Your task to perform on an android device: turn on data saver in the chrome app Image 0: 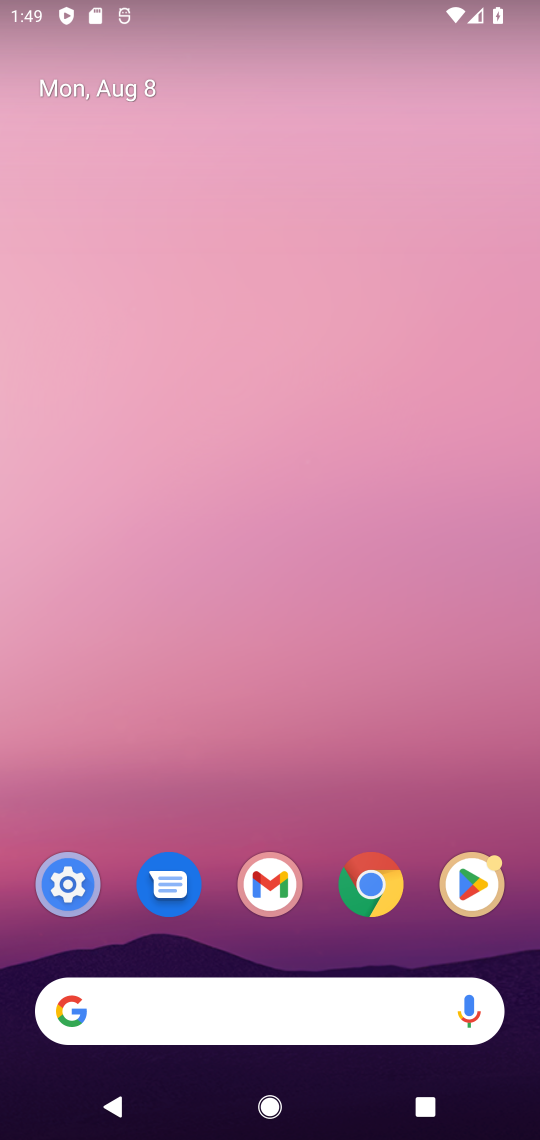
Step 0: click (372, 889)
Your task to perform on an android device: turn on data saver in the chrome app Image 1: 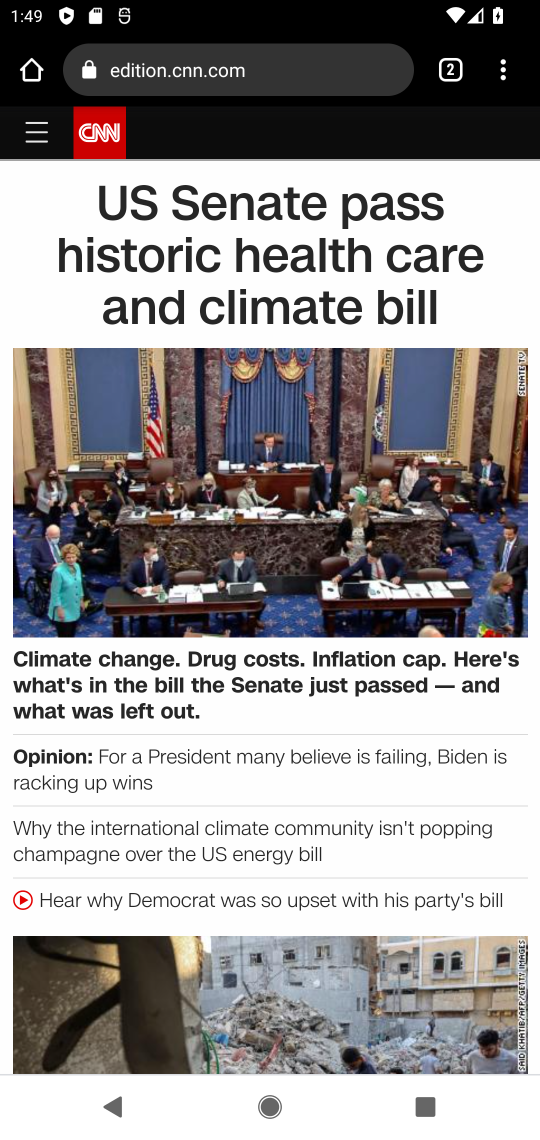
Step 1: click (504, 77)
Your task to perform on an android device: turn on data saver in the chrome app Image 2: 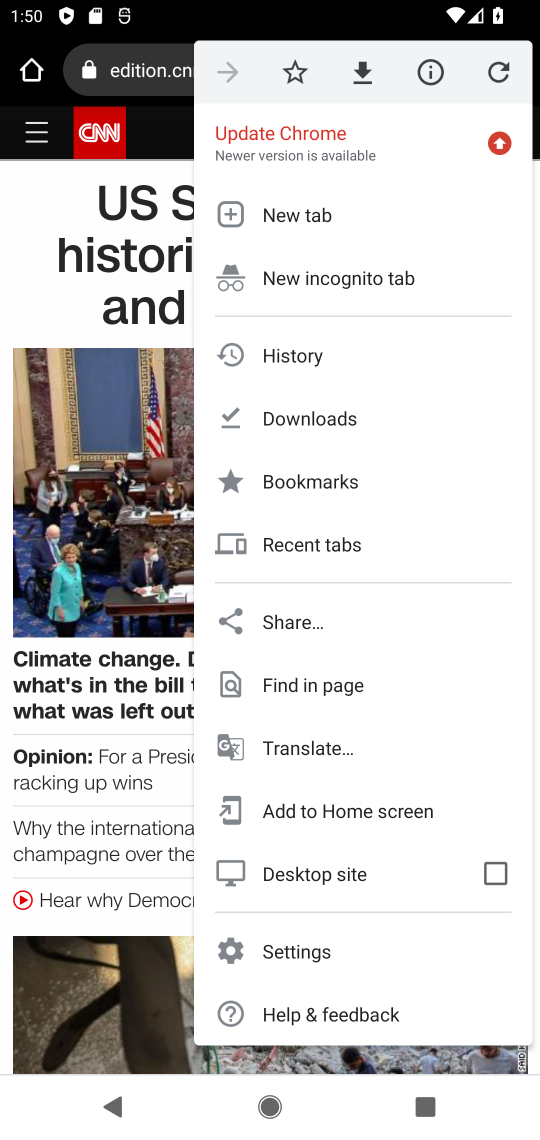
Step 2: click (311, 951)
Your task to perform on an android device: turn on data saver in the chrome app Image 3: 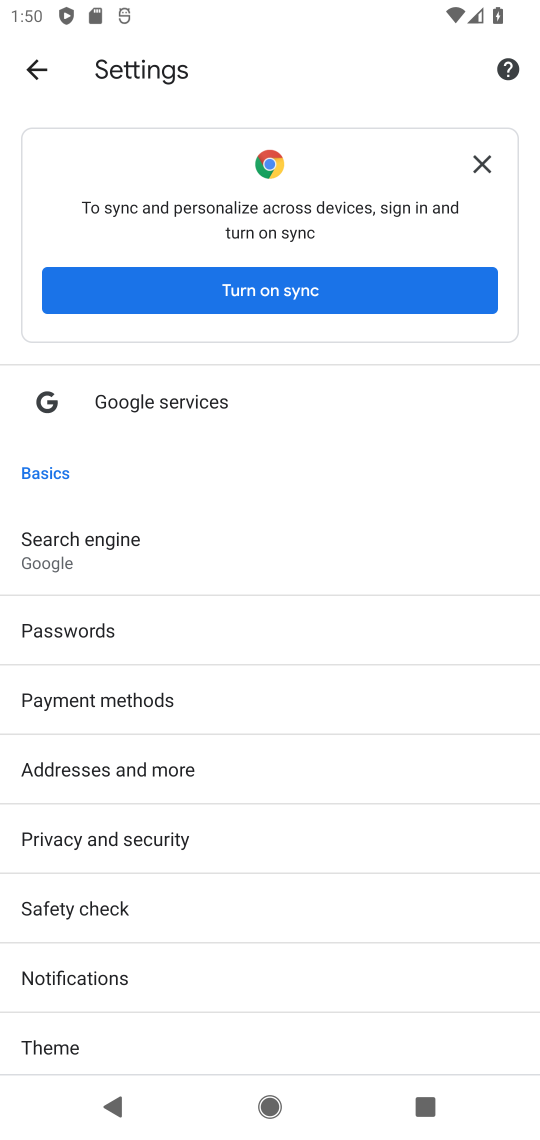
Step 3: drag from (318, 966) to (308, 699)
Your task to perform on an android device: turn on data saver in the chrome app Image 4: 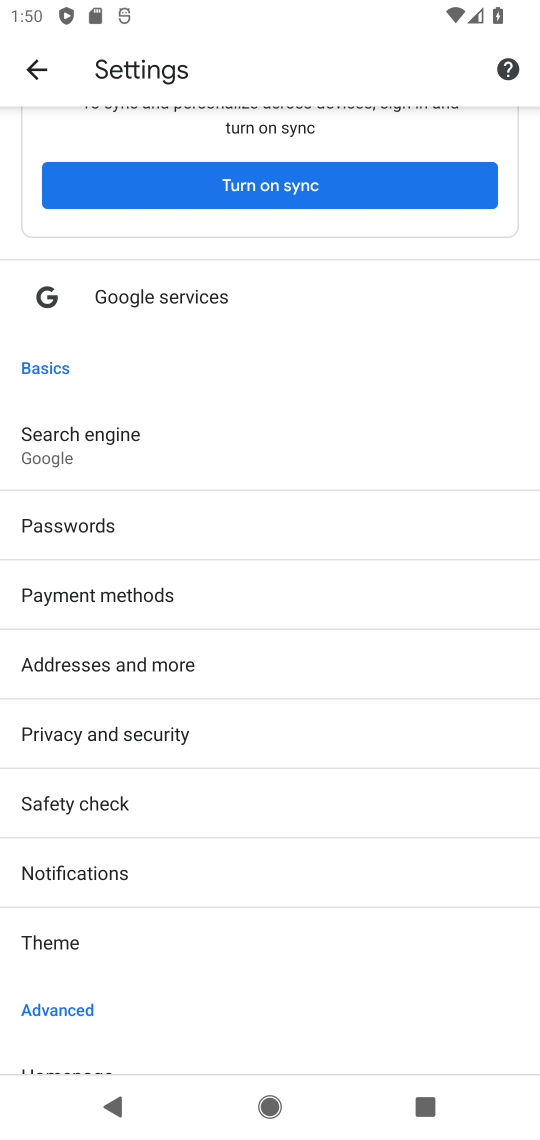
Step 4: drag from (291, 934) to (331, 629)
Your task to perform on an android device: turn on data saver in the chrome app Image 5: 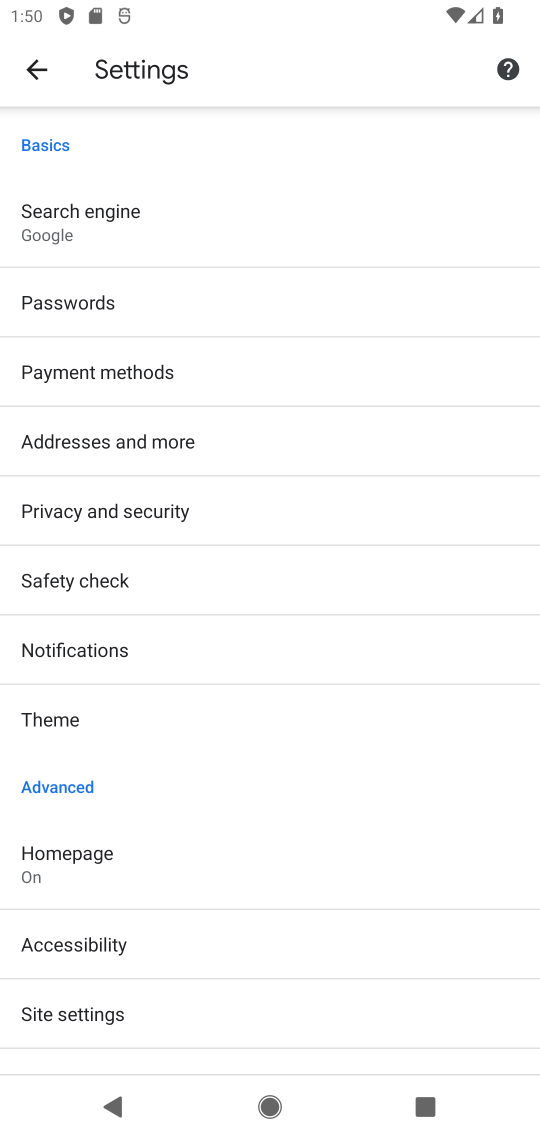
Step 5: drag from (304, 753) to (285, 353)
Your task to perform on an android device: turn on data saver in the chrome app Image 6: 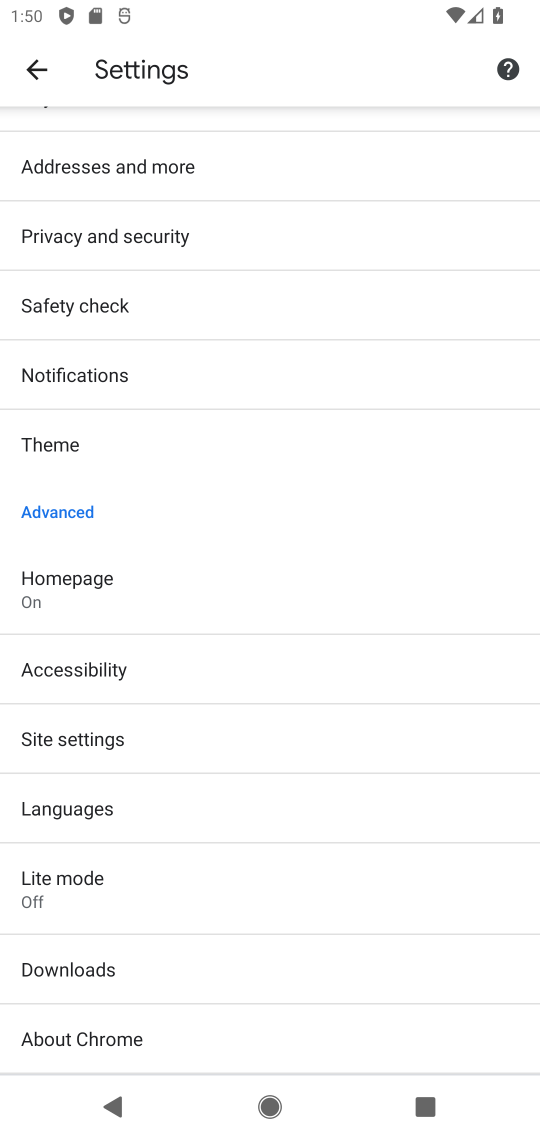
Step 6: click (67, 884)
Your task to perform on an android device: turn on data saver in the chrome app Image 7: 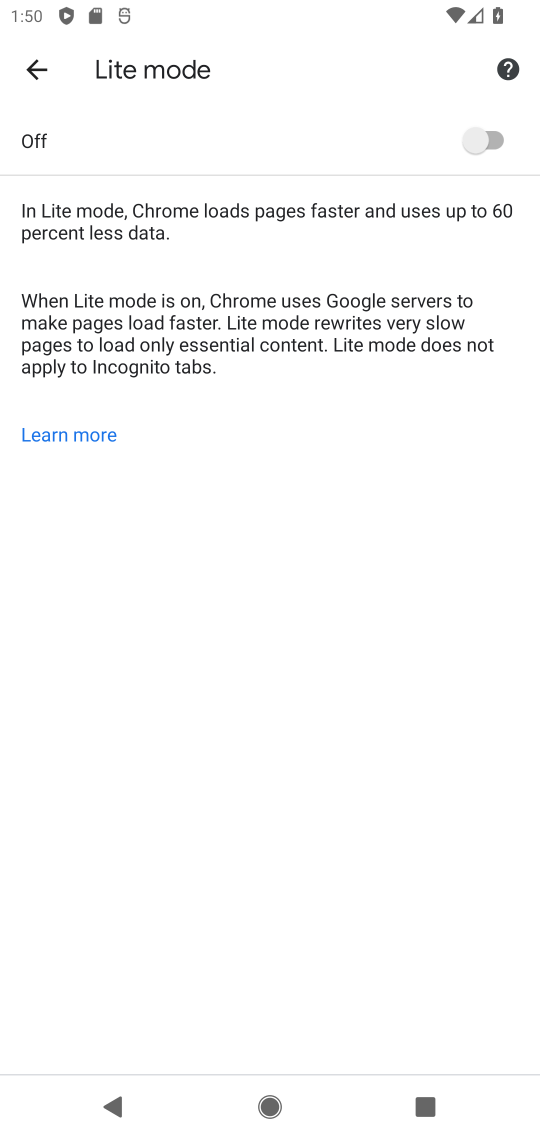
Step 7: click (476, 124)
Your task to perform on an android device: turn on data saver in the chrome app Image 8: 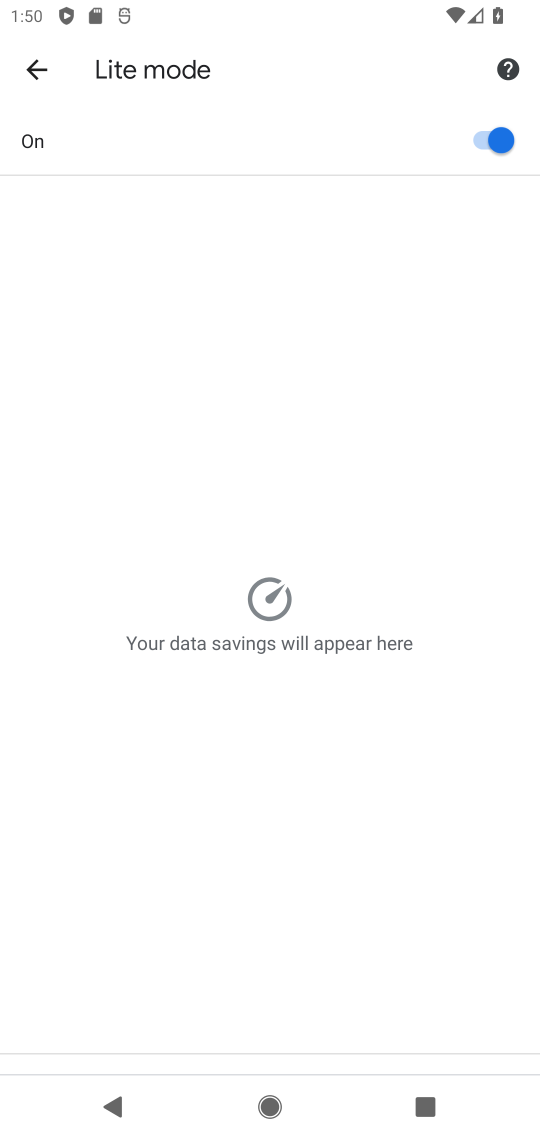
Step 8: task complete